Your task to perform on an android device: check google app version Image 0: 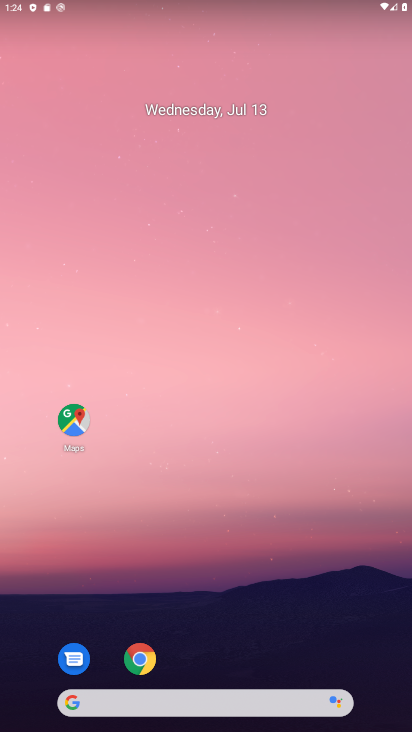
Step 0: click (142, 660)
Your task to perform on an android device: check google app version Image 1: 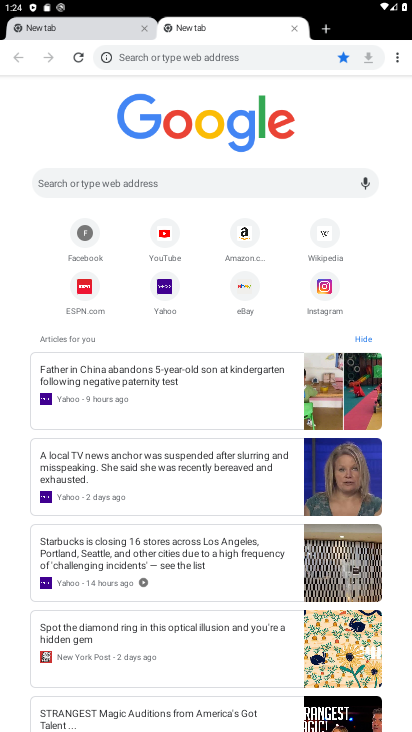
Step 1: click (395, 57)
Your task to perform on an android device: check google app version Image 2: 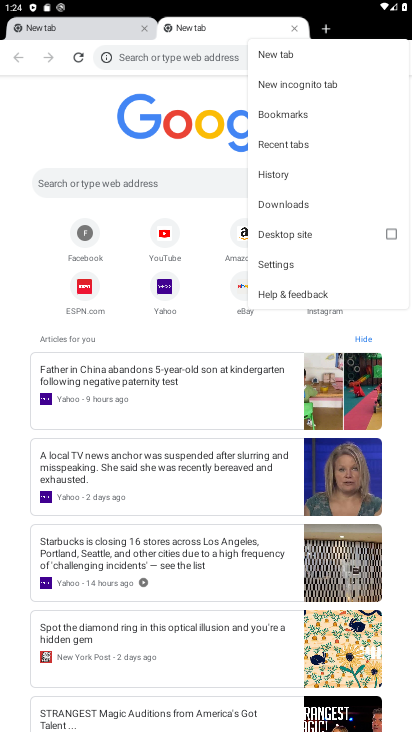
Step 2: click (279, 265)
Your task to perform on an android device: check google app version Image 3: 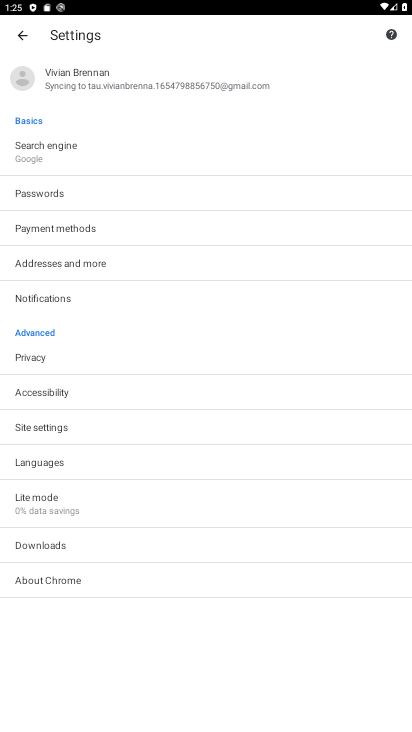
Step 3: click (55, 577)
Your task to perform on an android device: check google app version Image 4: 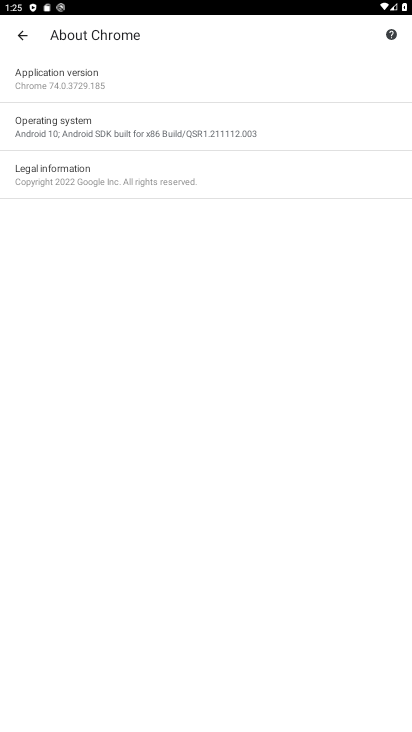
Step 4: click (74, 91)
Your task to perform on an android device: check google app version Image 5: 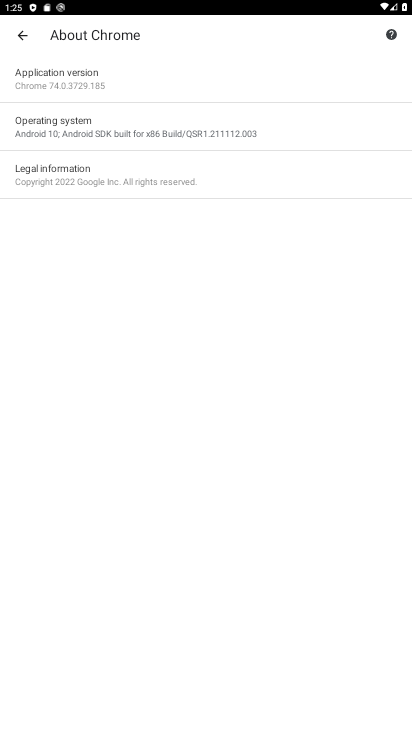
Step 5: task complete